Your task to perform on an android device: check battery use Image 0: 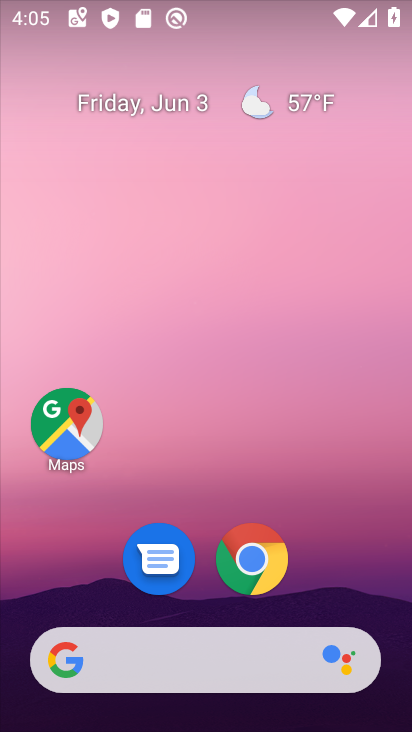
Step 0: drag from (311, 582) to (314, 106)
Your task to perform on an android device: check battery use Image 1: 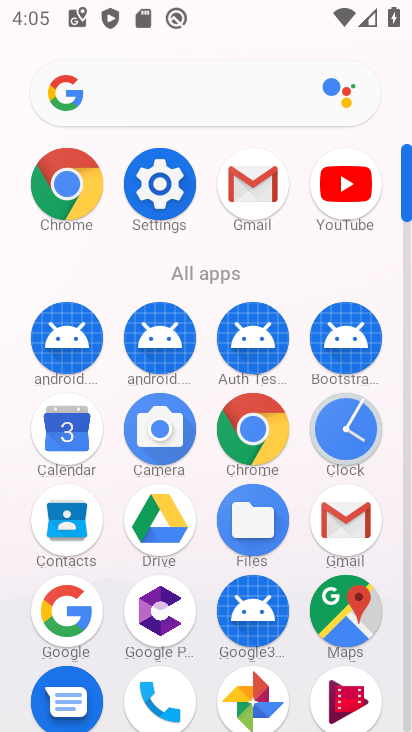
Step 1: click (154, 175)
Your task to perform on an android device: check battery use Image 2: 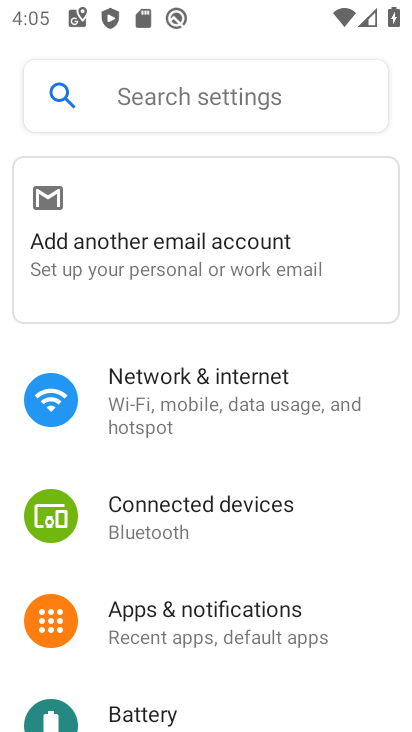
Step 2: click (152, 709)
Your task to perform on an android device: check battery use Image 3: 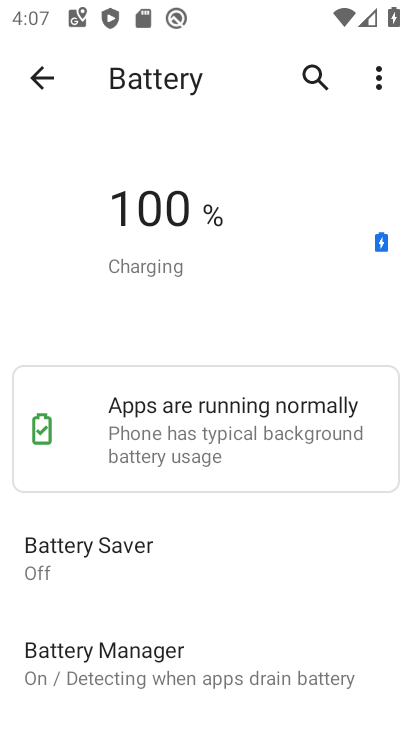
Step 3: task complete